Your task to perform on an android device: toggle notifications settings in the gmail app Image 0: 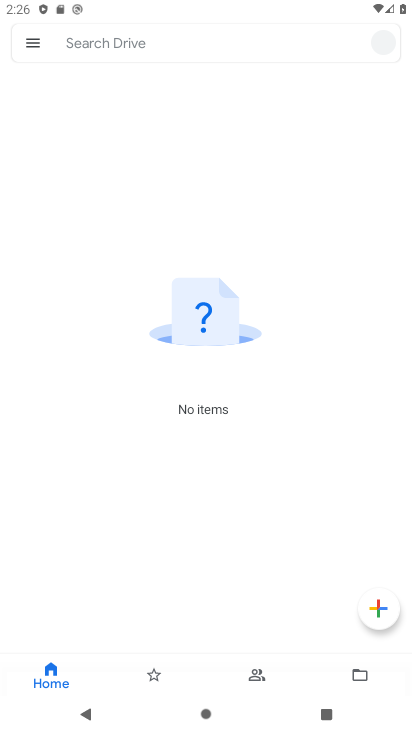
Step 0: press home button
Your task to perform on an android device: toggle notifications settings in the gmail app Image 1: 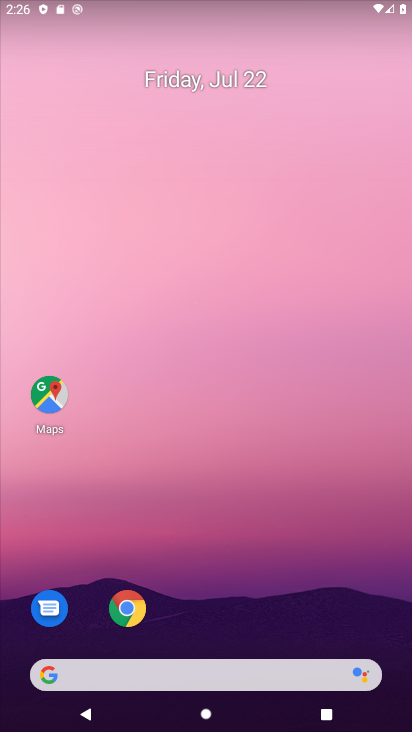
Step 1: drag from (341, 594) to (222, 135)
Your task to perform on an android device: toggle notifications settings in the gmail app Image 2: 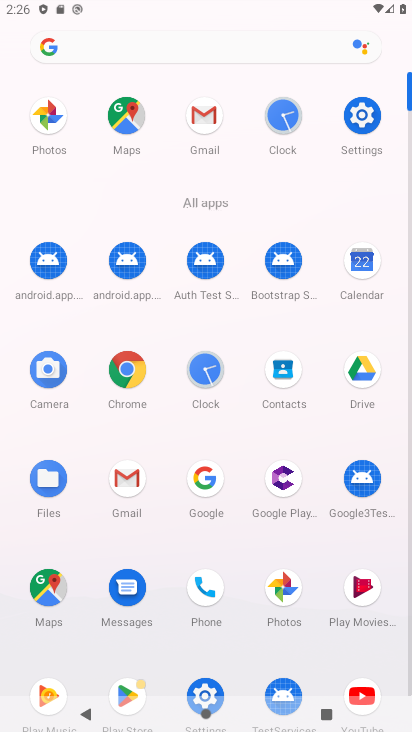
Step 2: click (121, 480)
Your task to perform on an android device: toggle notifications settings in the gmail app Image 3: 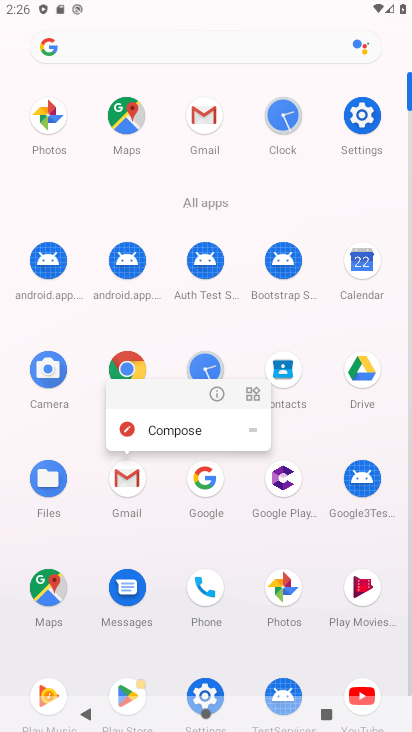
Step 3: click (210, 392)
Your task to perform on an android device: toggle notifications settings in the gmail app Image 4: 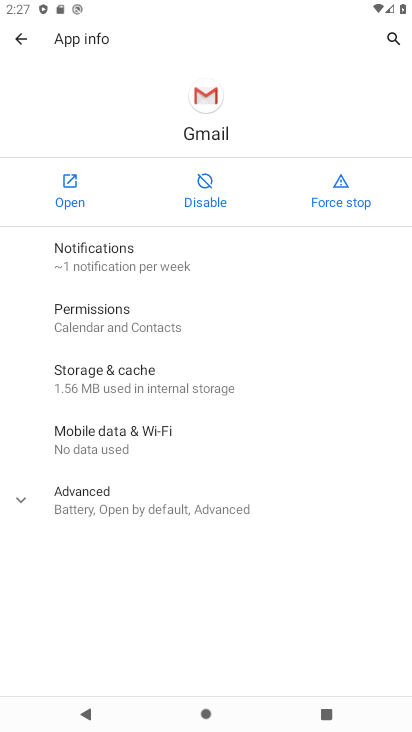
Step 4: click (238, 259)
Your task to perform on an android device: toggle notifications settings in the gmail app Image 5: 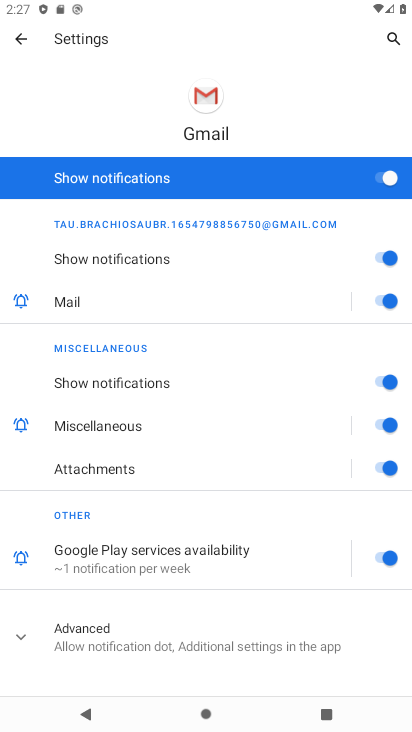
Step 5: click (391, 179)
Your task to perform on an android device: toggle notifications settings in the gmail app Image 6: 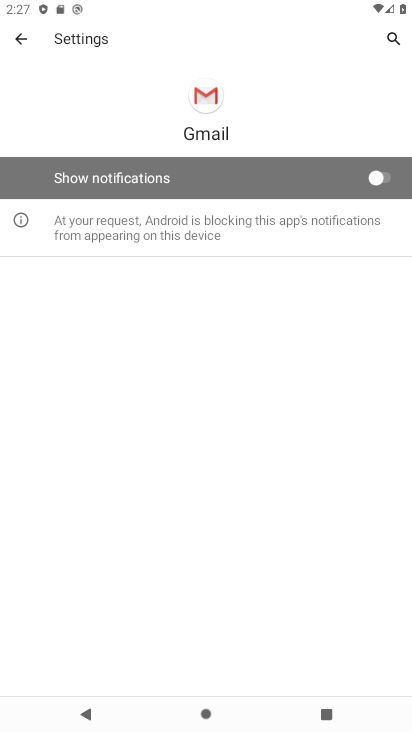
Step 6: task complete